Your task to perform on an android device: Open Amazon Image 0: 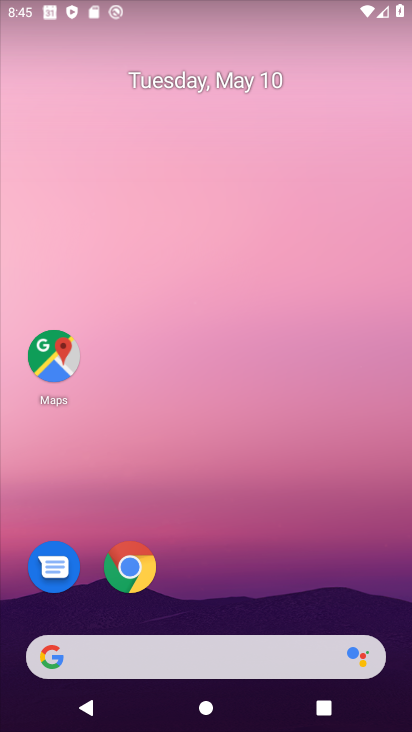
Step 0: drag from (264, 563) to (294, 62)
Your task to perform on an android device: Open Amazon Image 1: 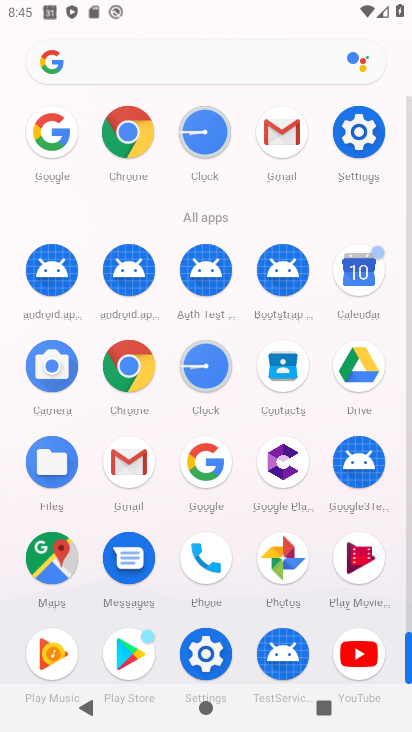
Step 1: click (139, 384)
Your task to perform on an android device: Open Amazon Image 2: 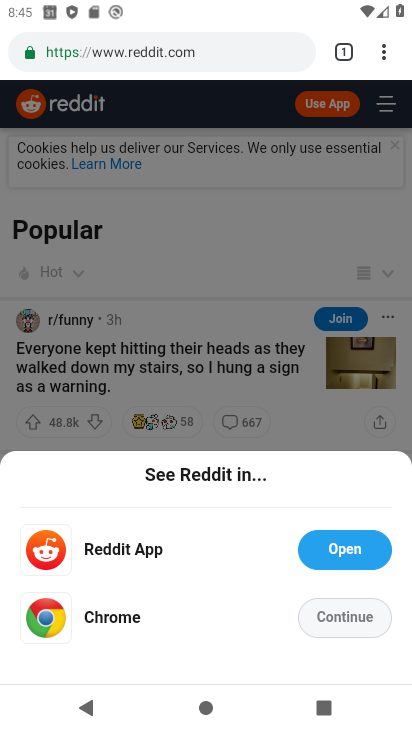
Step 2: click (170, 45)
Your task to perform on an android device: Open Amazon Image 3: 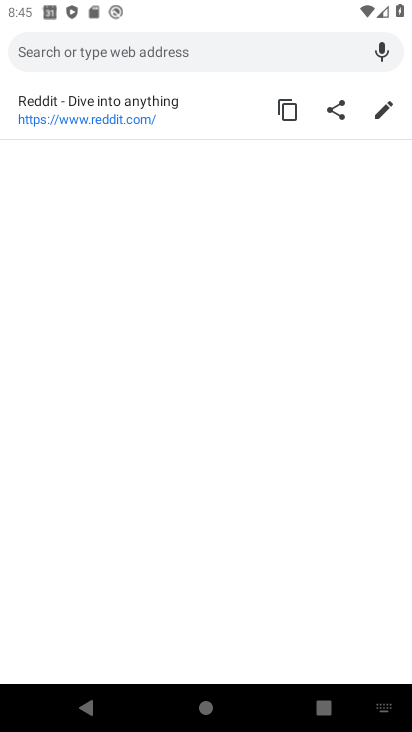
Step 3: type "amazon"
Your task to perform on an android device: Open Amazon Image 4: 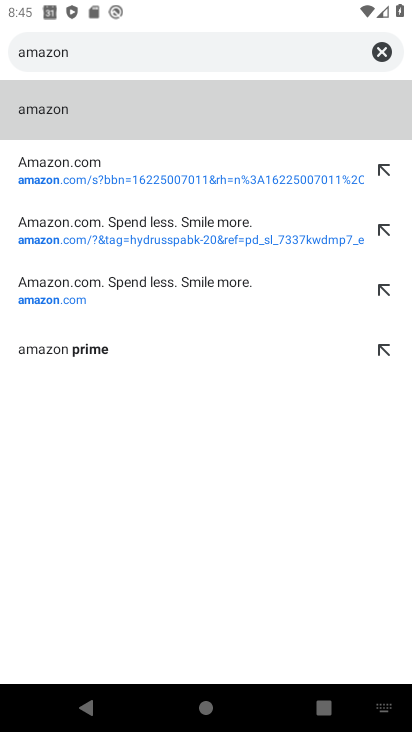
Step 4: click (45, 167)
Your task to perform on an android device: Open Amazon Image 5: 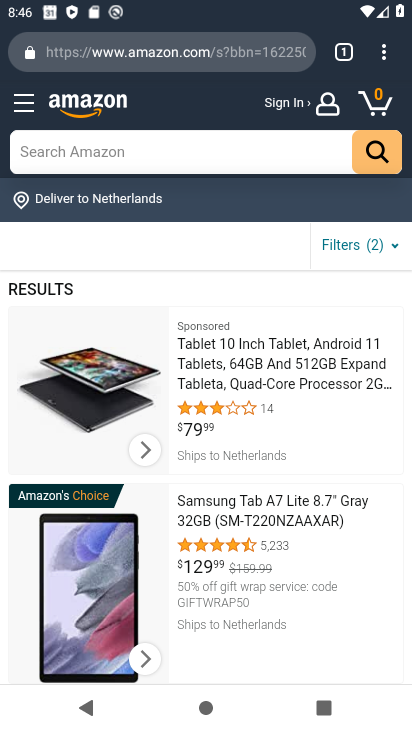
Step 5: task complete